Your task to perform on an android device: turn on wifi Image 0: 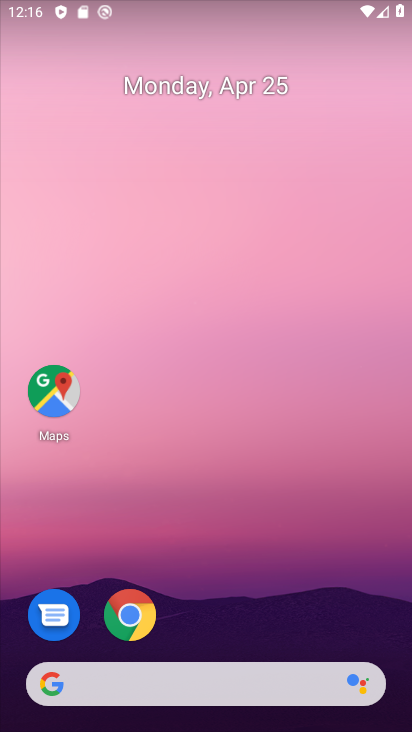
Step 0: drag from (222, 654) to (159, 41)
Your task to perform on an android device: turn on wifi Image 1: 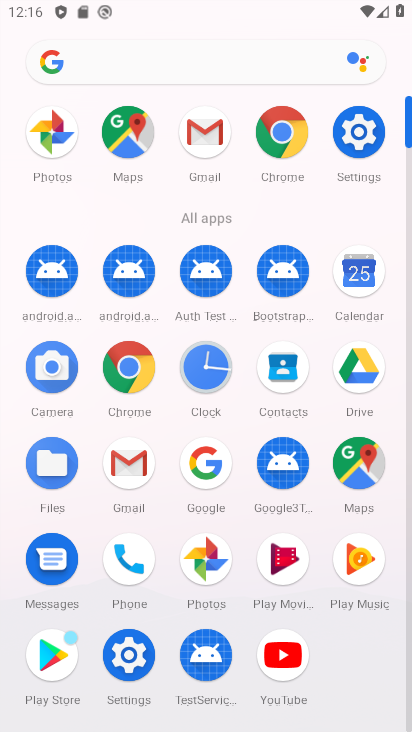
Step 1: click (121, 644)
Your task to perform on an android device: turn on wifi Image 2: 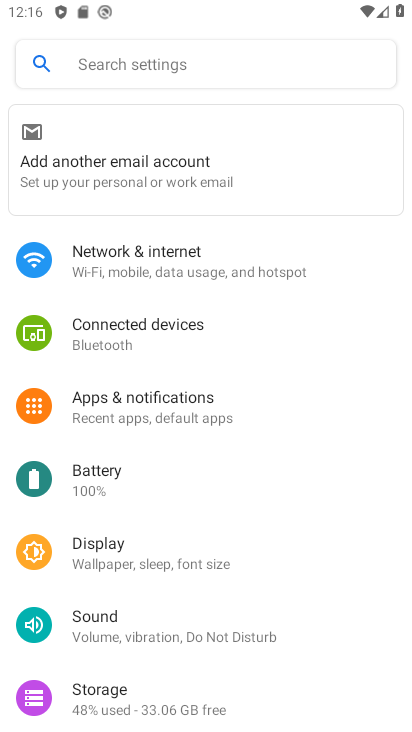
Step 2: click (136, 267)
Your task to perform on an android device: turn on wifi Image 3: 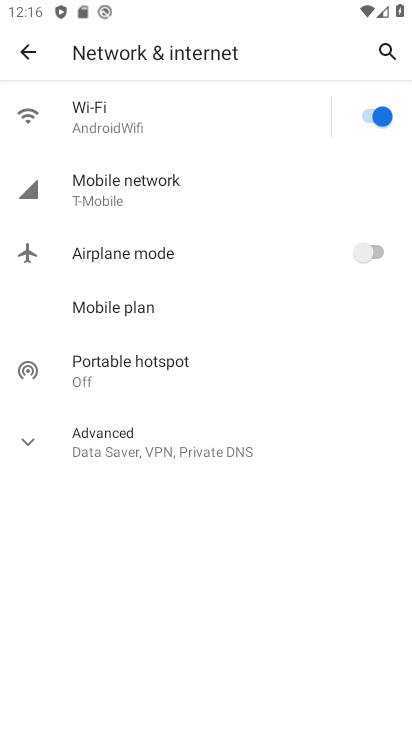
Step 3: click (202, 135)
Your task to perform on an android device: turn on wifi Image 4: 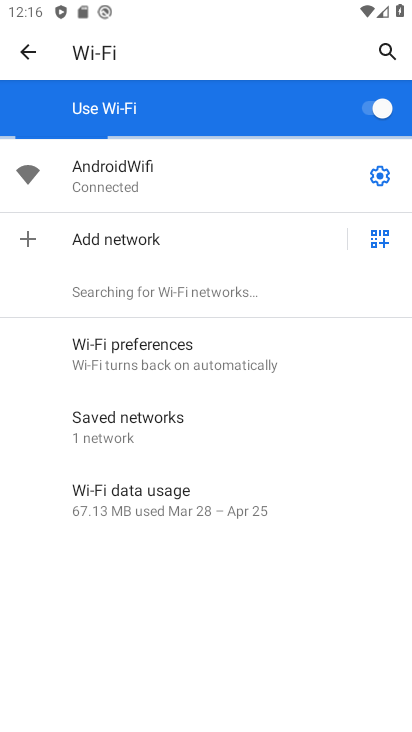
Step 4: task complete